Your task to perform on an android device: open device folders in google photos Image 0: 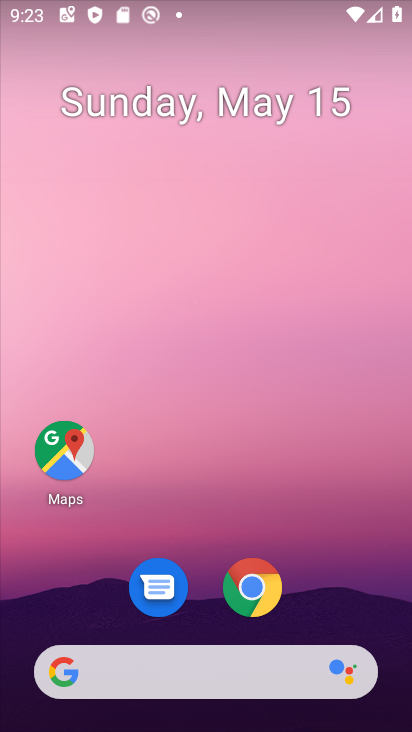
Step 0: drag from (386, 596) to (319, 109)
Your task to perform on an android device: open device folders in google photos Image 1: 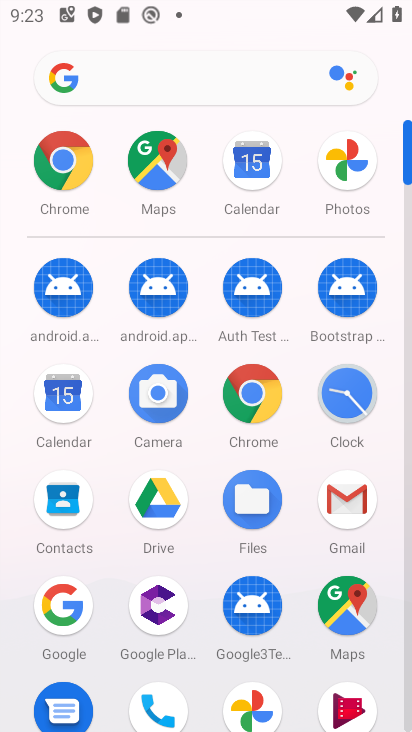
Step 1: click (245, 701)
Your task to perform on an android device: open device folders in google photos Image 2: 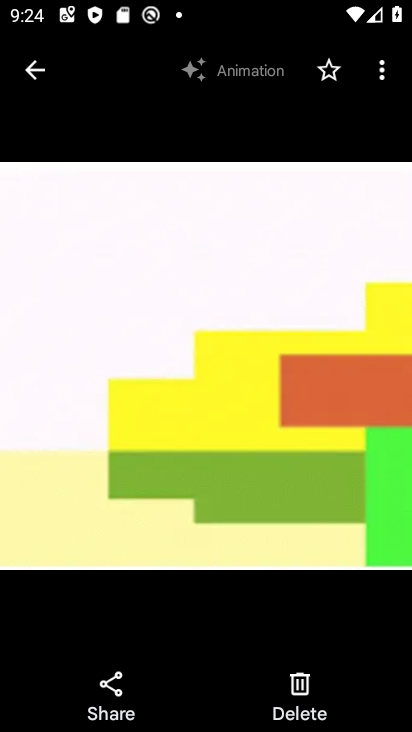
Step 2: task complete